Your task to perform on an android device: clear all cookies in the chrome app Image 0: 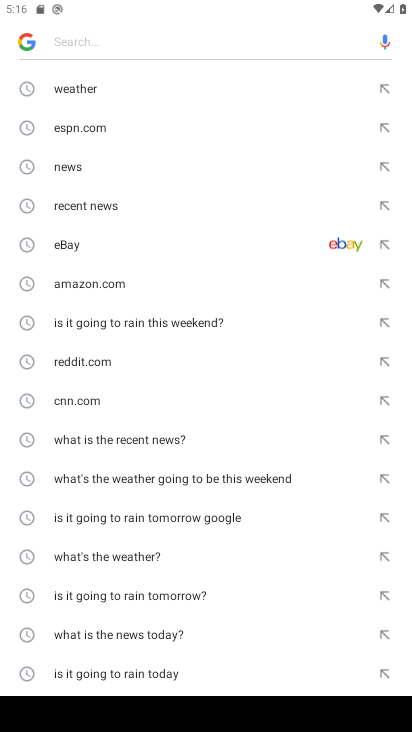
Step 0: press home button
Your task to perform on an android device: clear all cookies in the chrome app Image 1: 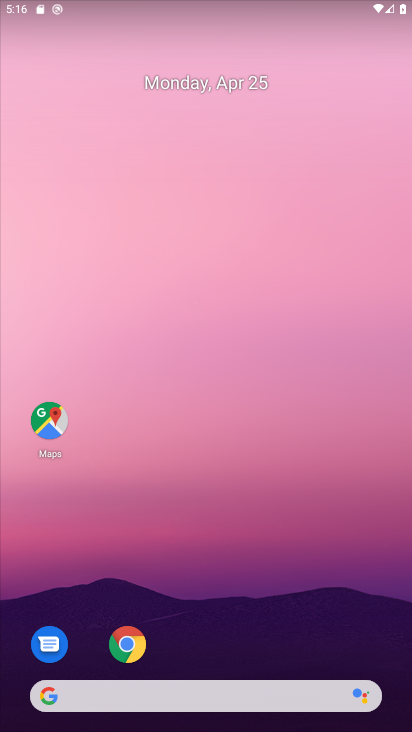
Step 1: drag from (263, 587) to (179, 72)
Your task to perform on an android device: clear all cookies in the chrome app Image 2: 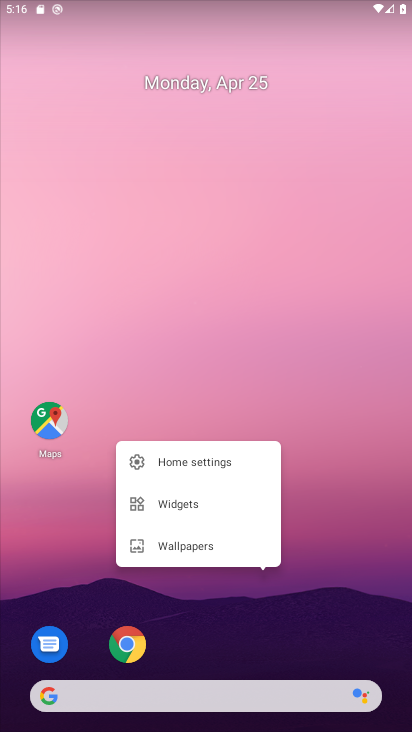
Step 2: drag from (265, 617) to (245, 158)
Your task to perform on an android device: clear all cookies in the chrome app Image 3: 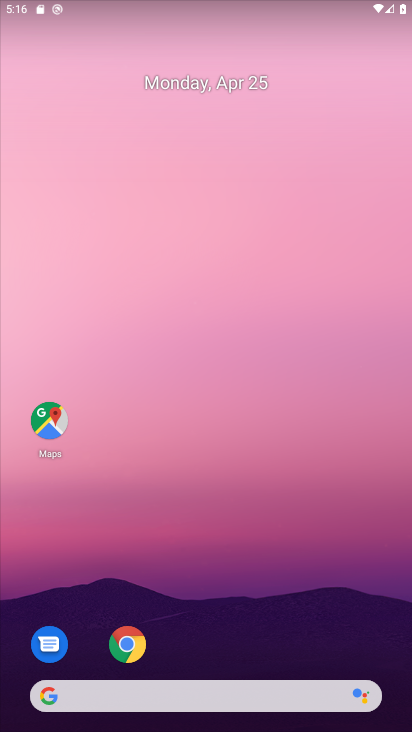
Step 3: drag from (222, 607) to (163, 37)
Your task to perform on an android device: clear all cookies in the chrome app Image 4: 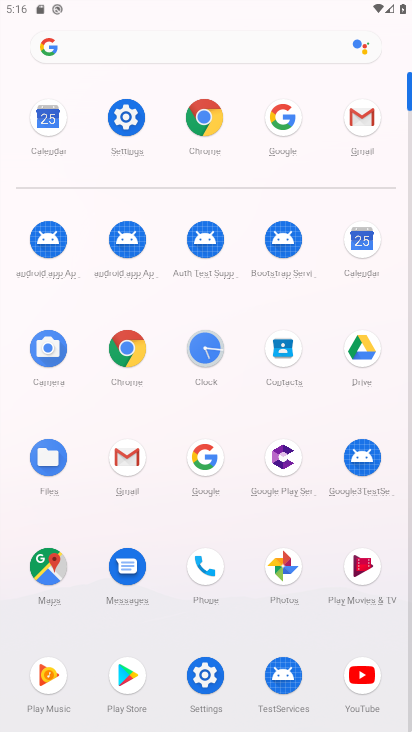
Step 4: click (211, 118)
Your task to perform on an android device: clear all cookies in the chrome app Image 5: 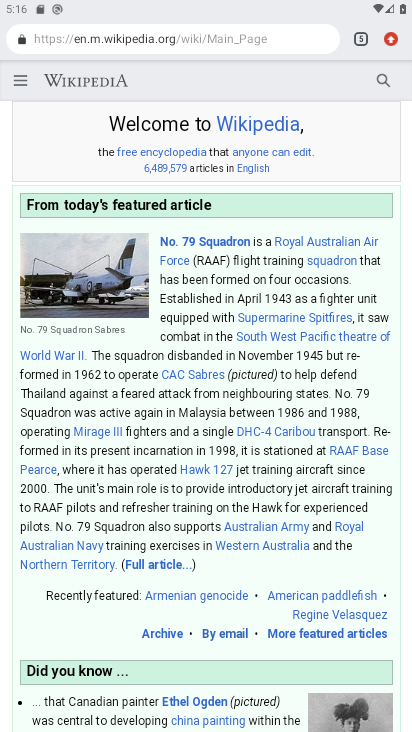
Step 5: click (361, 34)
Your task to perform on an android device: clear all cookies in the chrome app Image 6: 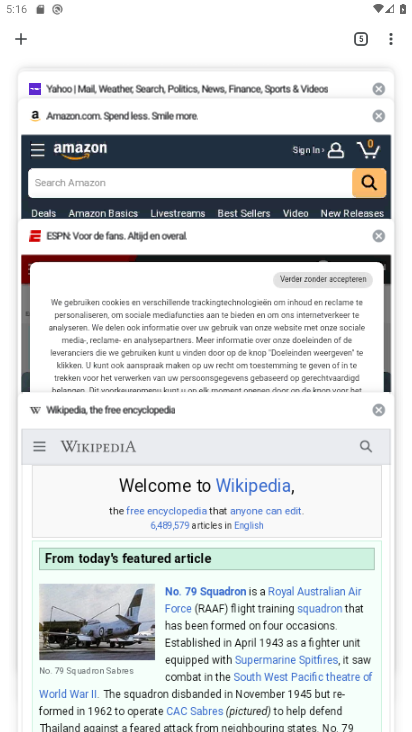
Step 6: click (389, 35)
Your task to perform on an android device: clear all cookies in the chrome app Image 7: 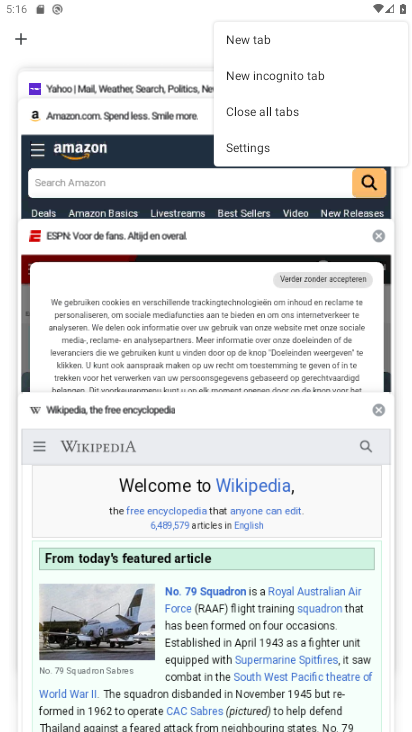
Step 7: click (272, 142)
Your task to perform on an android device: clear all cookies in the chrome app Image 8: 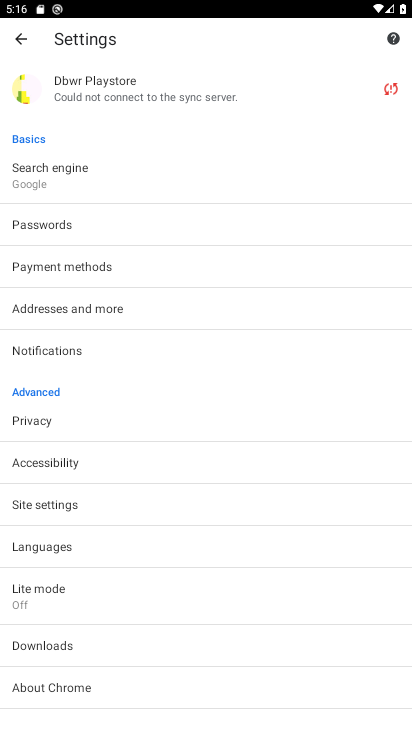
Step 8: click (21, 37)
Your task to perform on an android device: clear all cookies in the chrome app Image 9: 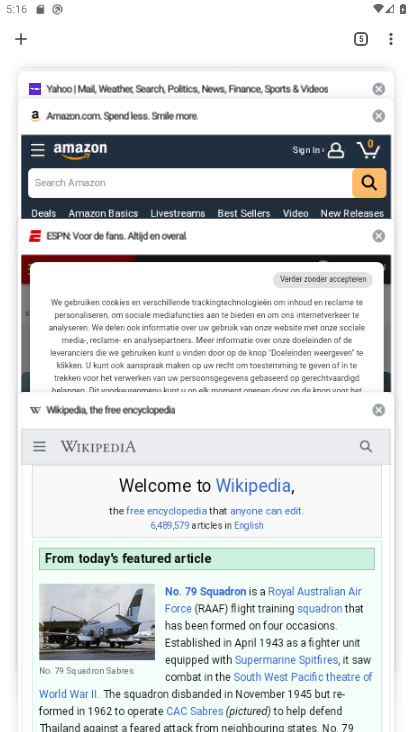
Step 9: click (258, 127)
Your task to perform on an android device: clear all cookies in the chrome app Image 10: 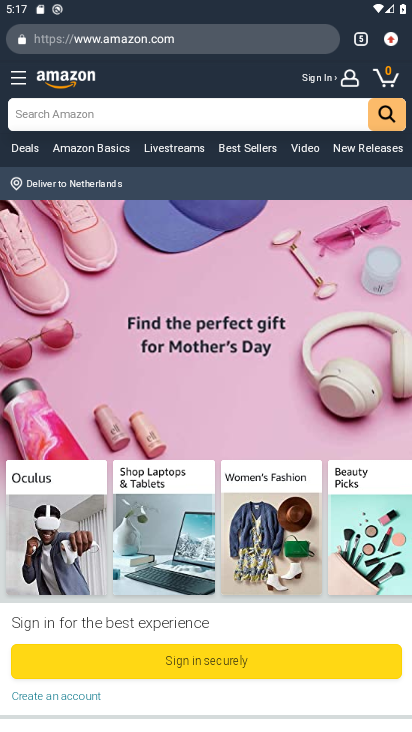
Step 10: click (387, 38)
Your task to perform on an android device: clear all cookies in the chrome app Image 11: 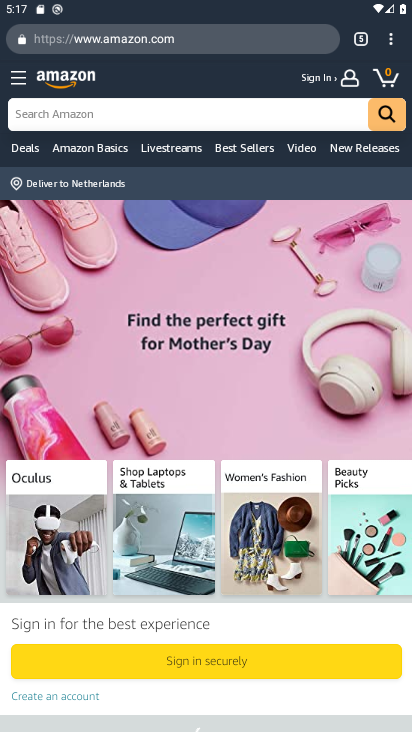
Step 11: click (391, 36)
Your task to perform on an android device: clear all cookies in the chrome app Image 12: 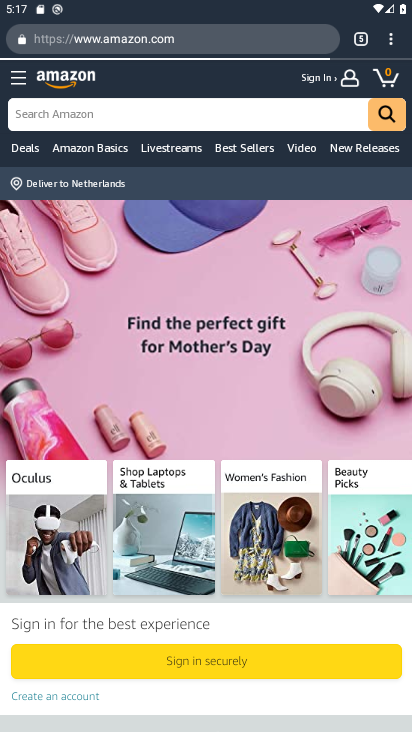
Step 12: click (386, 35)
Your task to perform on an android device: clear all cookies in the chrome app Image 13: 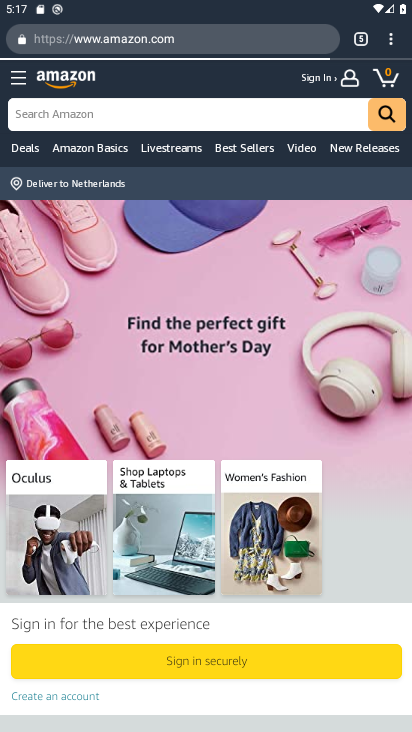
Step 13: click (386, 35)
Your task to perform on an android device: clear all cookies in the chrome app Image 14: 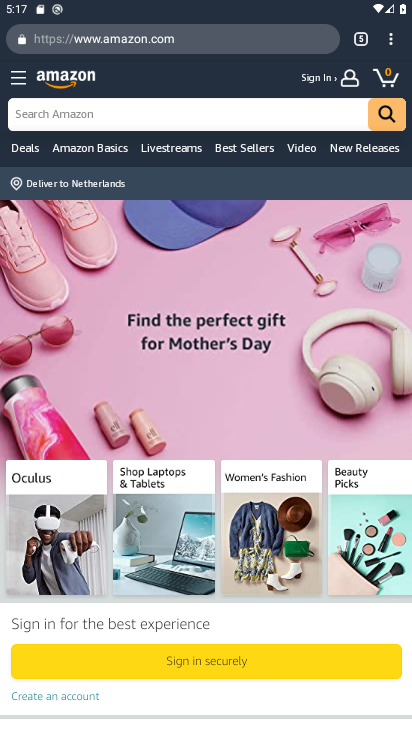
Step 14: click (389, 45)
Your task to perform on an android device: clear all cookies in the chrome app Image 15: 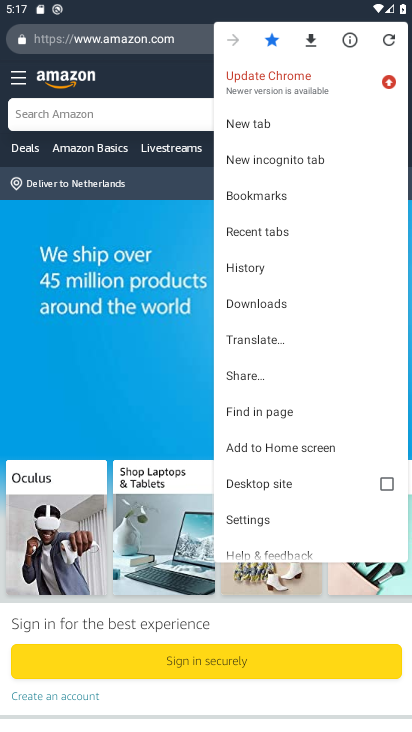
Step 15: click (253, 263)
Your task to perform on an android device: clear all cookies in the chrome app Image 16: 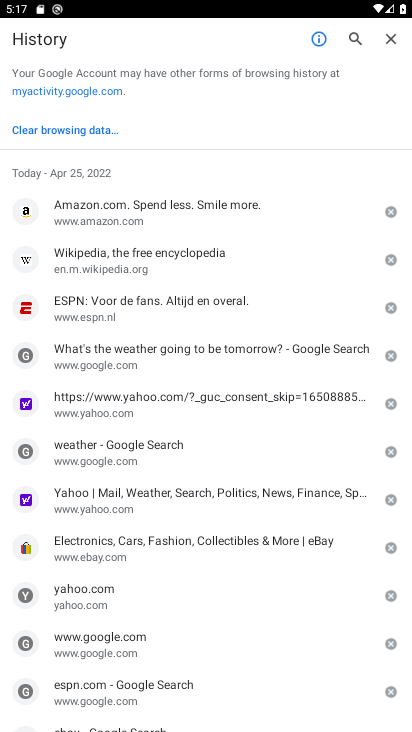
Step 16: click (84, 125)
Your task to perform on an android device: clear all cookies in the chrome app Image 17: 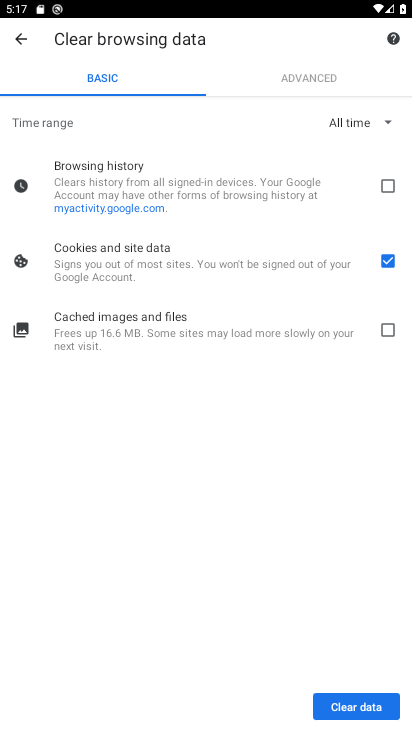
Step 17: click (346, 695)
Your task to perform on an android device: clear all cookies in the chrome app Image 18: 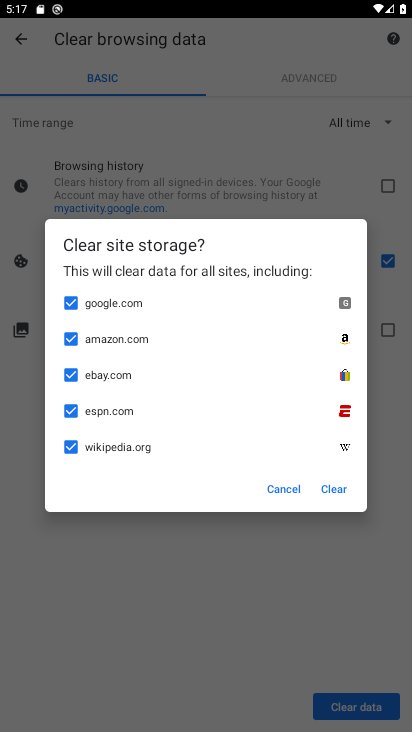
Step 18: click (329, 481)
Your task to perform on an android device: clear all cookies in the chrome app Image 19: 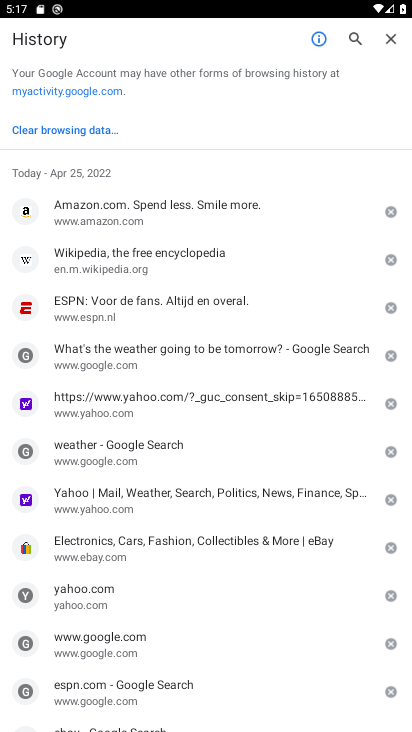
Step 19: task complete